Your task to perform on an android device: Search for seafood restaurants on Google Maps Image 0: 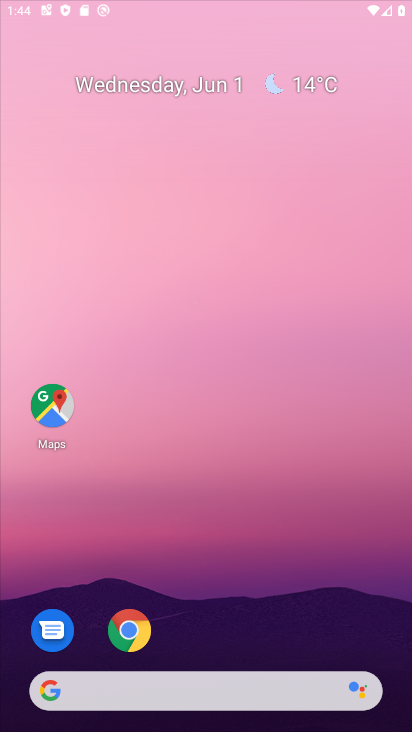
Step 0: press home button
Your task to perform on an android device: Search for seafood restaurants on Google Maps Image 1: 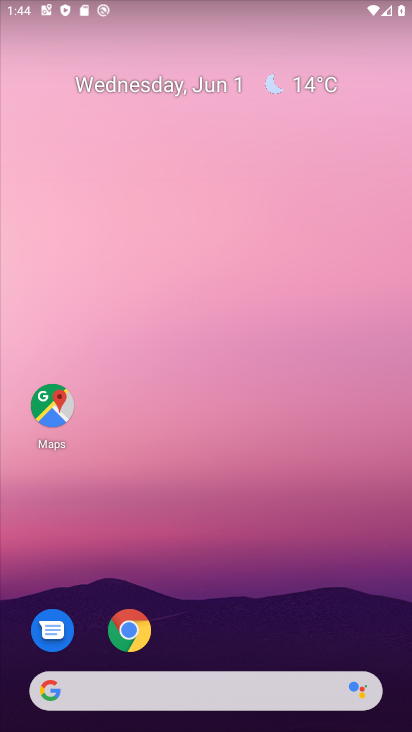
Step 1: click (54, 401)
Your task to perform on an android device: Search for seafood restaurants on Google Maps Image 2: 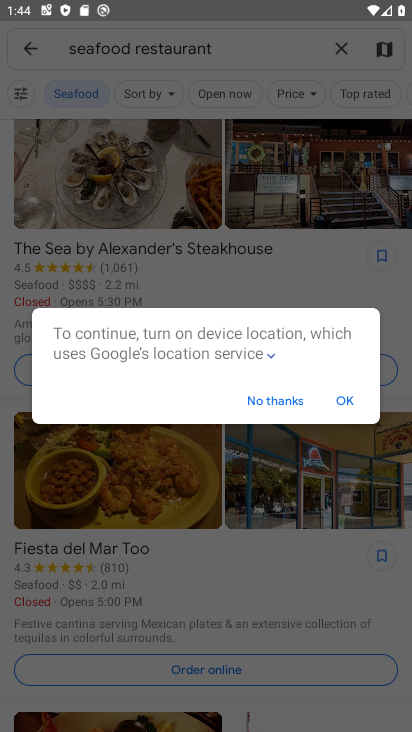
Step 2: click (275, 400)
Your task to perform on an android device: Search for seafood restaurants on Google Maps Image 3: 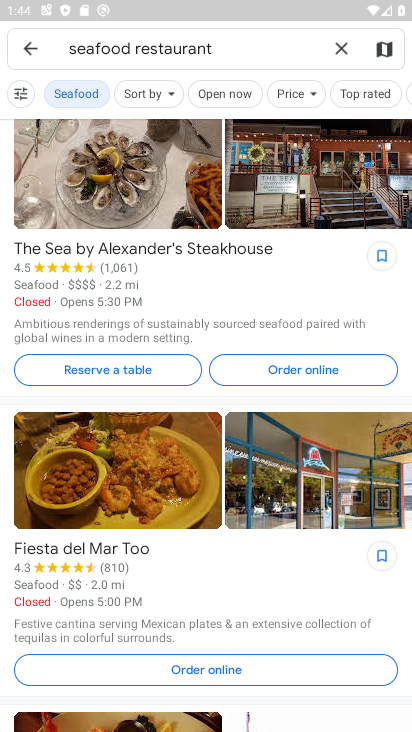
Step 3: task complete